Your task to perform on an android device: change your default location settings in chrome Image 0: 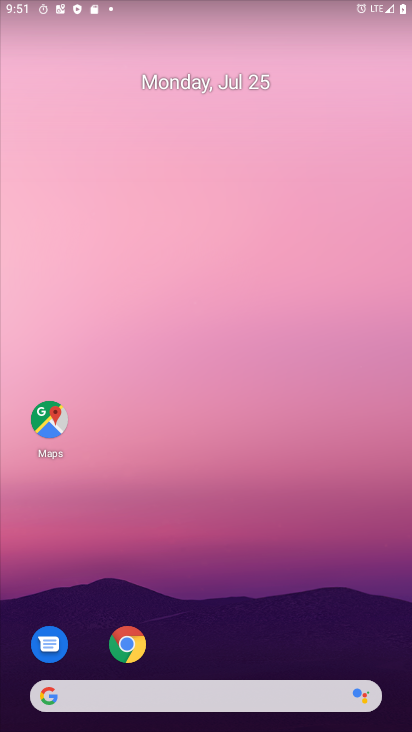
Step 0: drag from (224, 566) to (234, 198)
Your task to perform on an android device: change your default location settings in chrome Image 1: 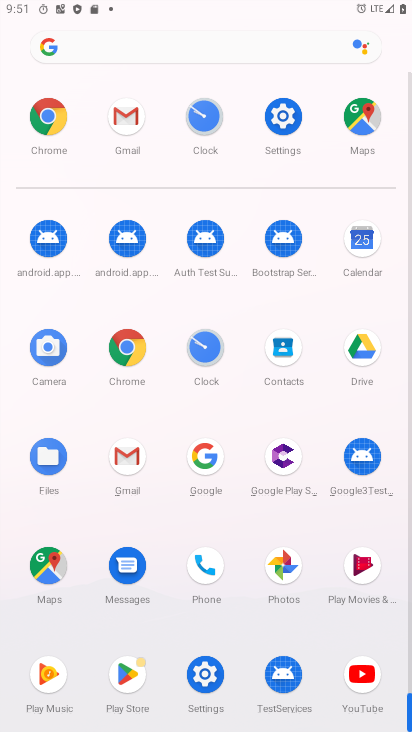
Step 1: click (125, 349)
Your task to perform on an android device: change your default location settings in chrome Image 2: 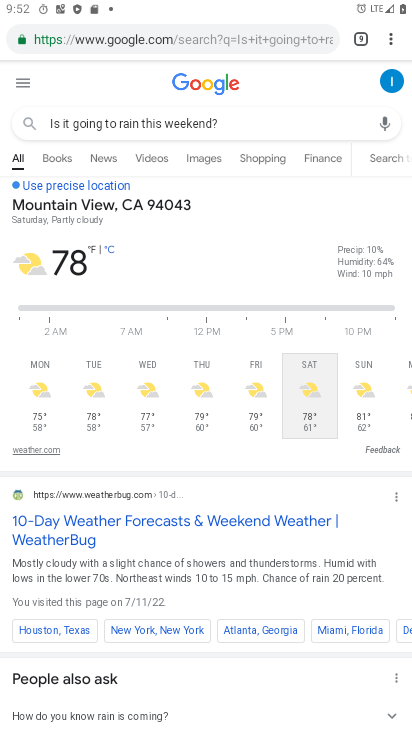
Step 2: click (398, 38)
Your task to perform on an android device: change your default location settings in chrome Image 3: 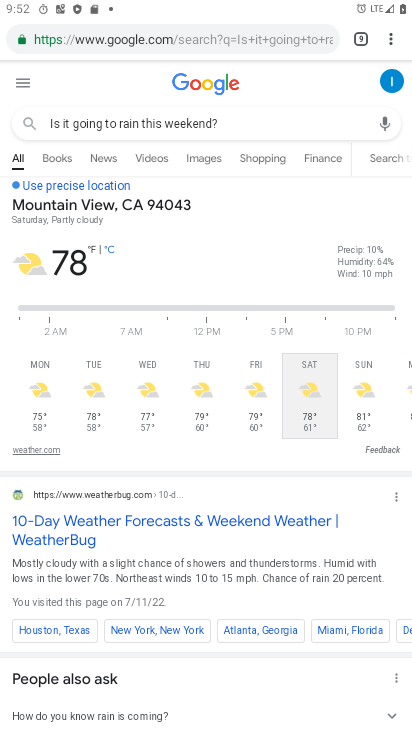
Step 3: click (395, 41)
Your task to perform on an android device: change your default location settings in chrome Image 4: 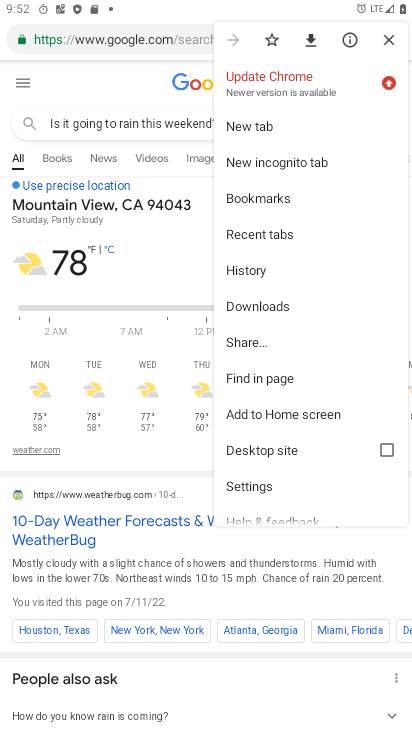
Step 4: click (273, 482)
Your task to perform on an android device: change your default location settings in chrome Image 5: 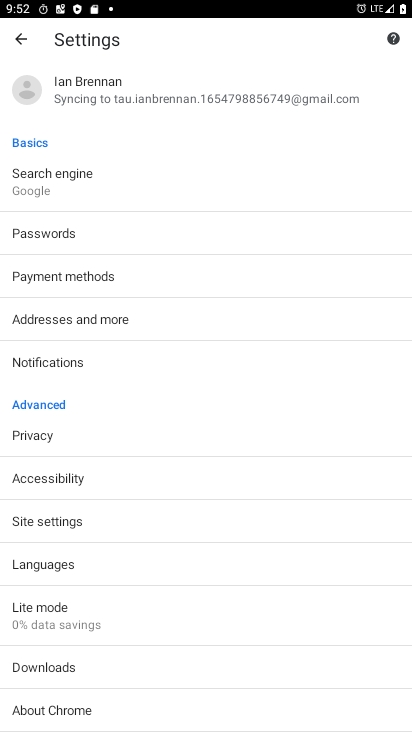
Step 5: drag from (114, 456) to (146, 287)
Your task to perform on an android device: change your default location settings in chrome Image 6: 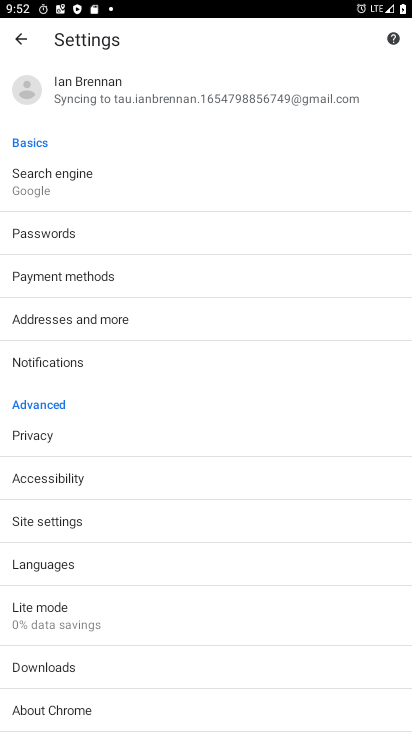
Step 6: click (90, 517)
Your task to perform on an android device: change your default location settings in chrome Image 7: 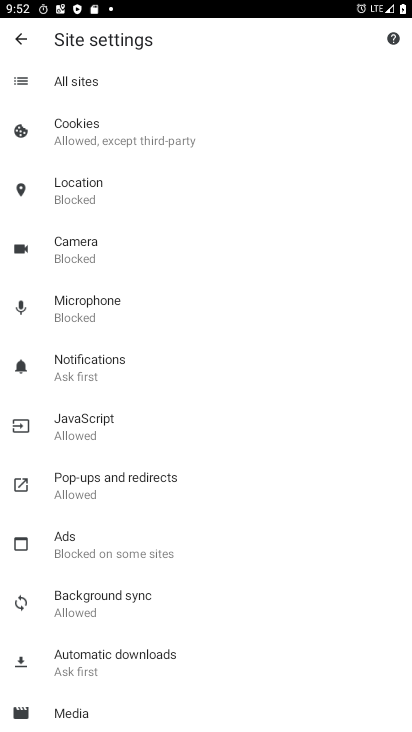
Step 7: click (140, 204)
Your task to perform on an android device: change your default location settings in chrome Image 8: 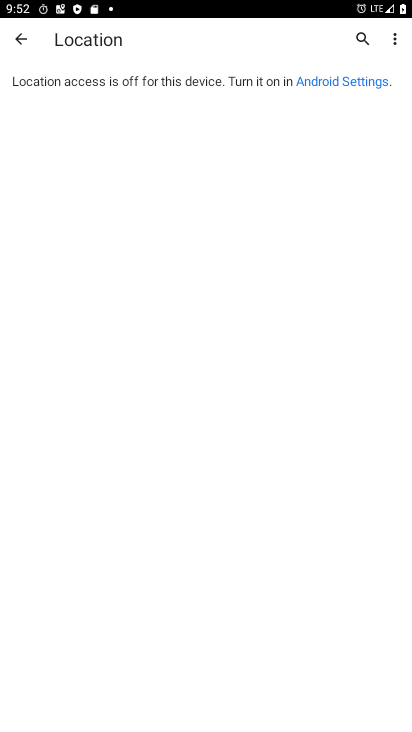
Step 8: click (349, 78)
Your task to perform on an android device: change your default location settings in chrome Image 9: 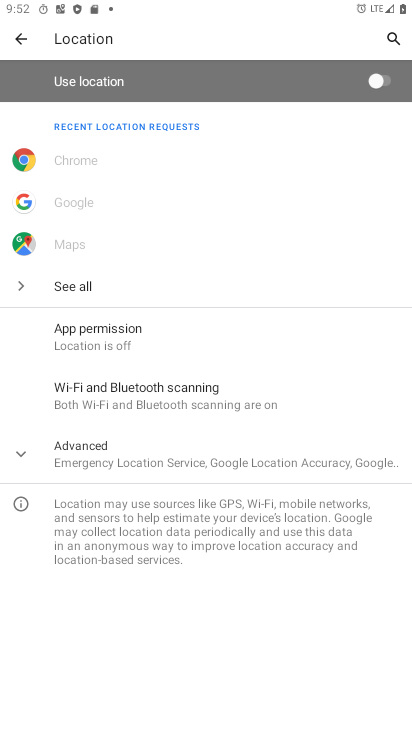
Step 9: click (369, 80)
Your task to perform on an android device: change your default location settings in chrome Image 10: 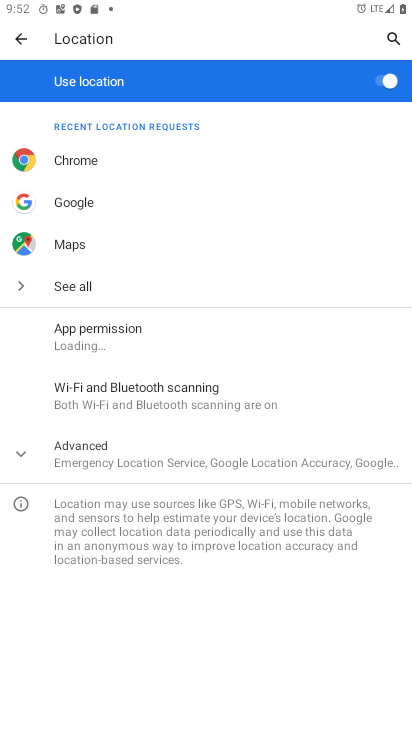
Step 10: task complete